Your task to perform on an android device: Open Google Chrome and click the shortcut for Amazon.com Image 0: 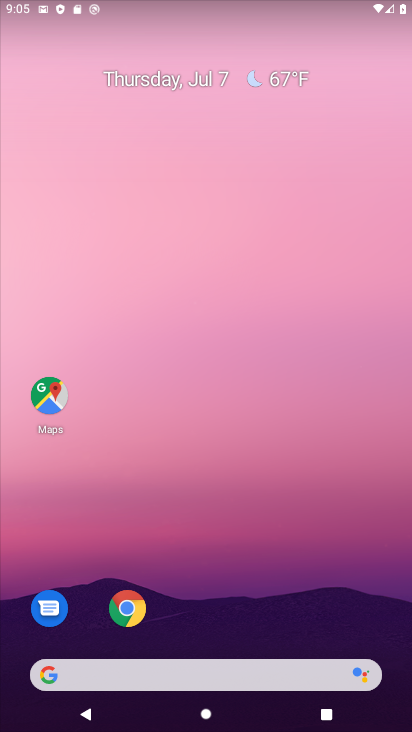
Step 0: click (147, 615)
Your task to perform on an android device: Open Google Chrome and click the shortcut for Amazon.com Image 1: 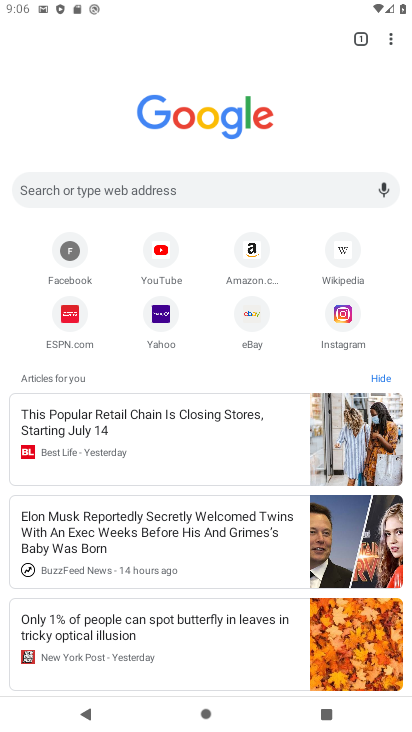
Step 1: click (243, 259)
Your task to perform on an android device: Open Google Chrome and click the shortcut for Amazon.com Image 2: 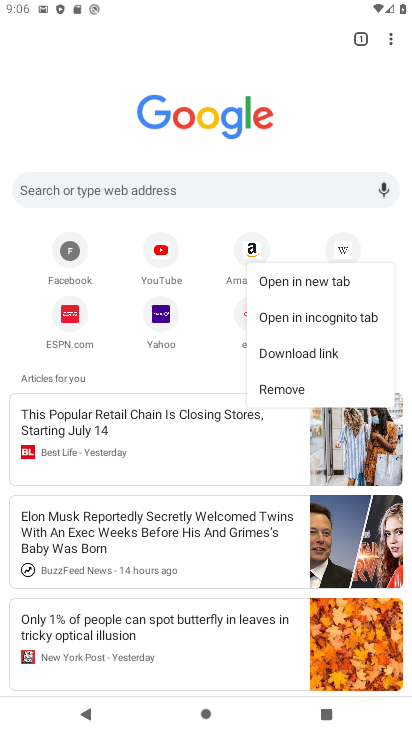
Step 2: click (243, 258)
Your task to perform on an android device: Open Google Chrome and click the shortcut for Amazon.com Image 3: 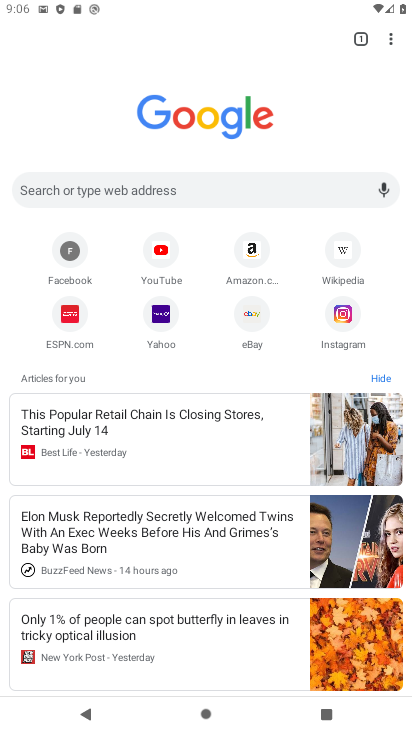
Step 3: click (255, 249)
Your task to perform on an android device: Open Google Chrome and click the shortcut for Amazon.com Image 4: 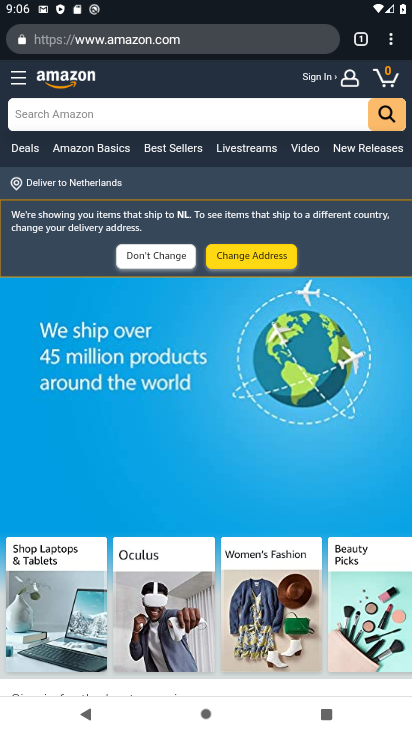
Step 4: click (389, 55)
Your task to perform on an android device: Open Google Chrome and click the shortcut for Amazon.com Image 5: 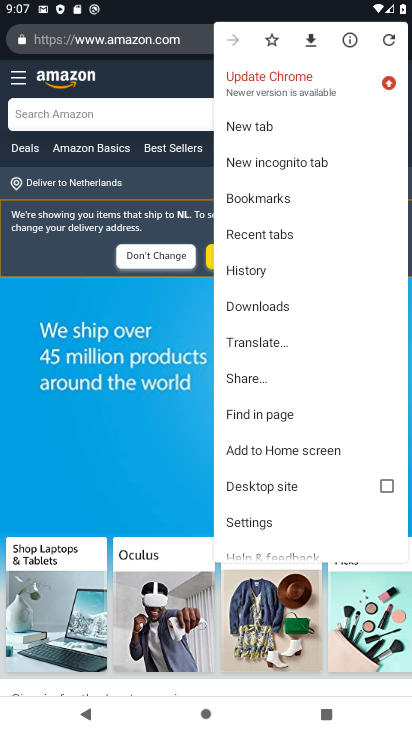
Step 5: click (273, 445)
Your task to perform on an android device: Open Google Chrome and click the shortcut for Amazon.com Image 6: 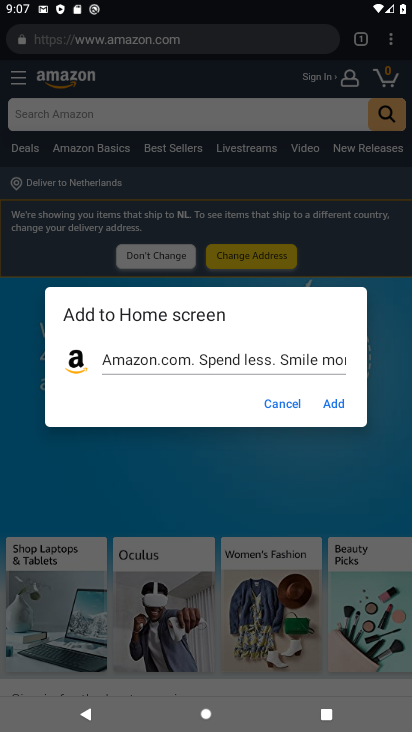
Step 6: click (335, 402)
Your task to perform on an android device: Open Google Chrome and click the shortcut for Amazon.com Image 7: 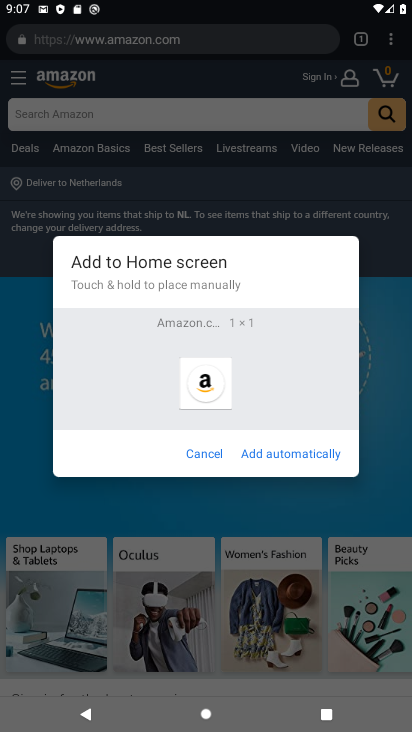
Step 7: click (281, 459)
Your task to perform on an android device: Open Google Chrome and click the shortcut for Amazon.com Image 8: 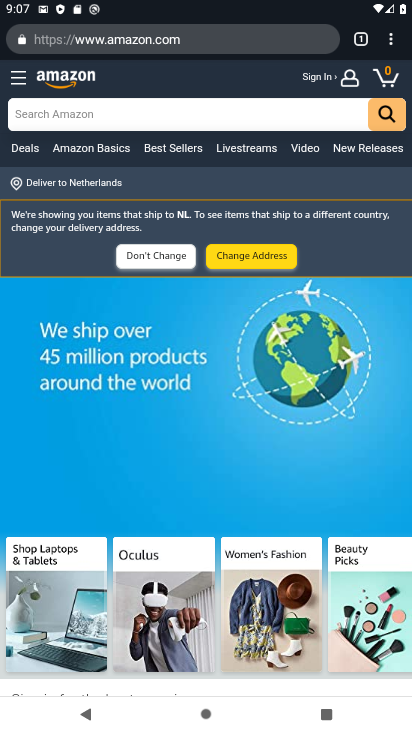
Step 8: task complete